Your task to perform on an android device: turn off notifications settings in the gmail app Image 0: 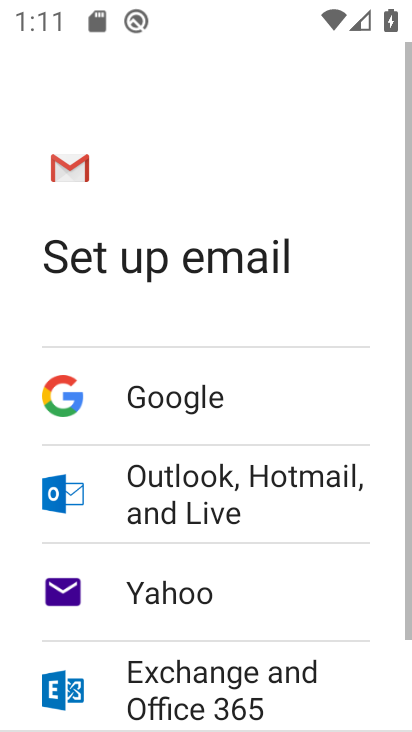
Step 0: press home button
Your task to perform on an android device: turn off notifications settings in the gmail app Image 1: 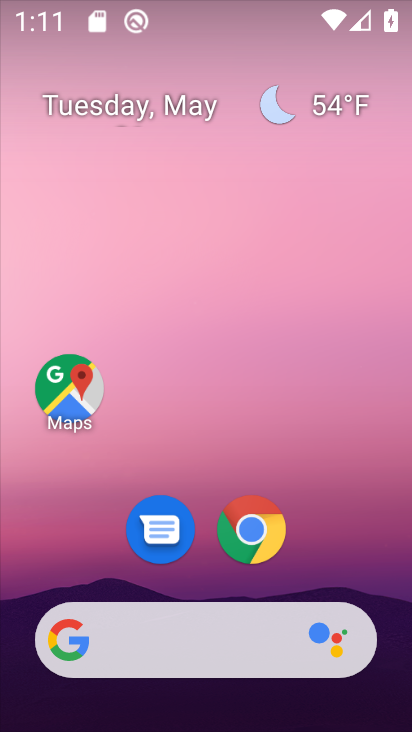
Step 1: drag from (321, 559) to (304, 189)
Your task to perform on an android device: turn off notifications settings in the gmail app Image 2: 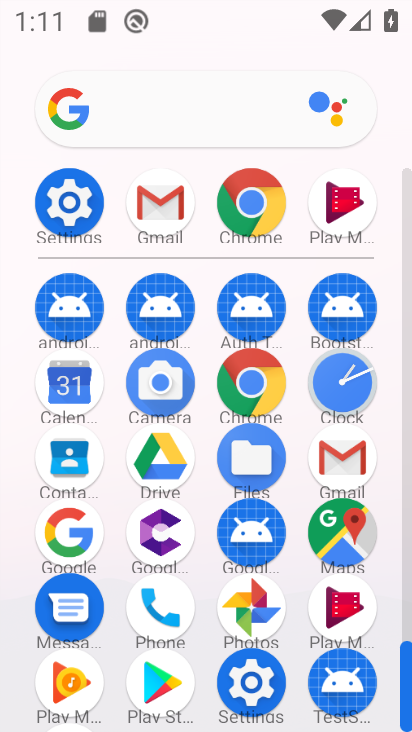
Step 2: click (75, 190)
Your task to perform on an android device: turn off notifications settings in the gmail app Image 3: 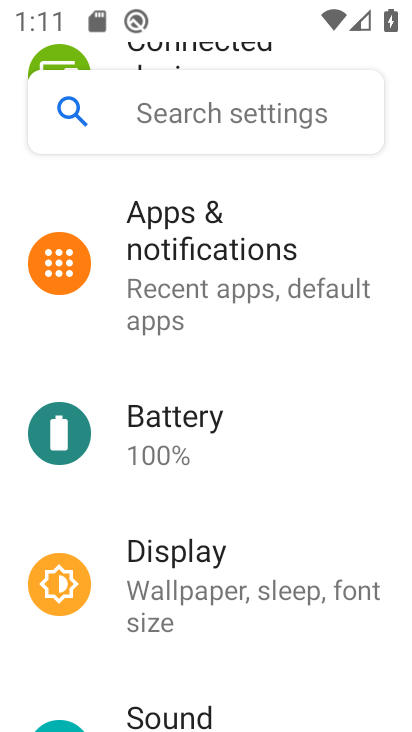
Step 3: press home button
Your task to perform on an android device: turn off notifications settings in the gmail app Image 4: 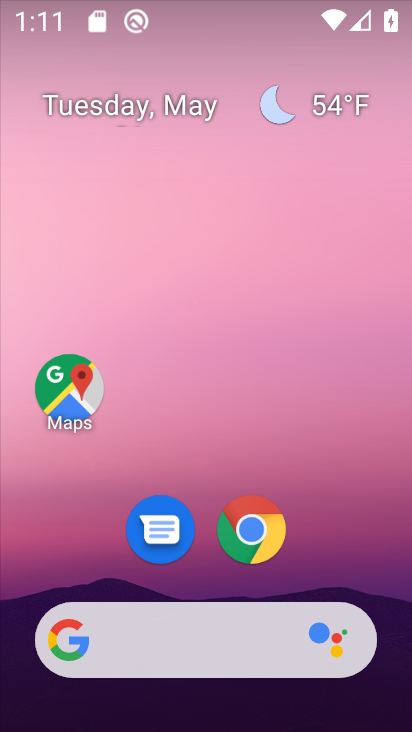
Step 4: drag from (267, 530) to (238, 285)
Your task to perform on an android device: turn off notifications settings in the gmail app Image 5: 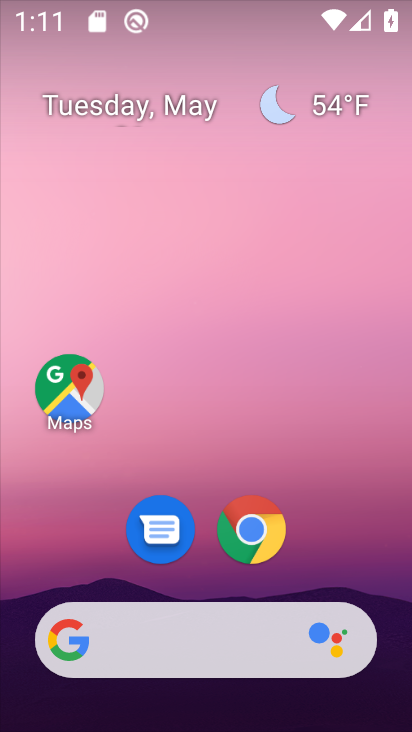
Step 5: drag from (177, 592) to (196, 221)
Your task to perform on an android device: turn off notifications settings in the gmail app Image 6: 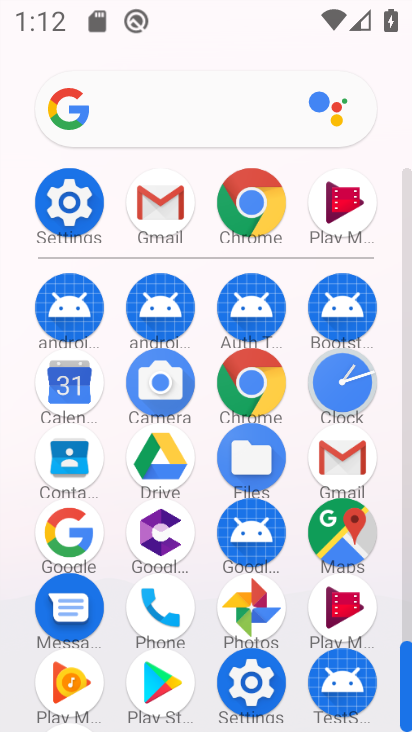
Step 6: click (341, 447)
Your task to perform on an android device: turn off notifications settings in the gmail app Image 7: 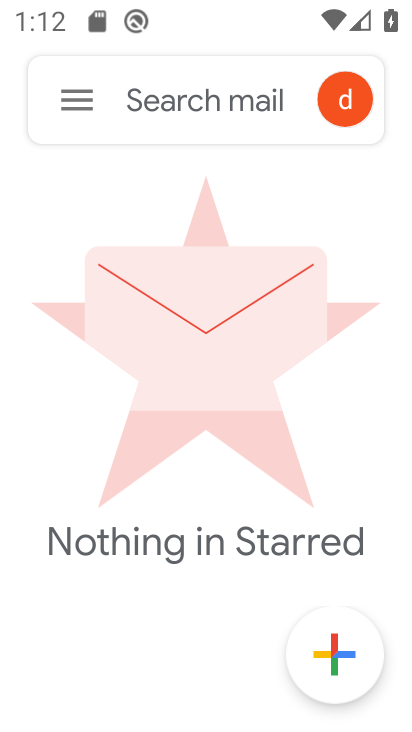
Step 7: click (76, 93)
Your task to perform on an android device: turn off notifications settings in the gmail app Image 8: 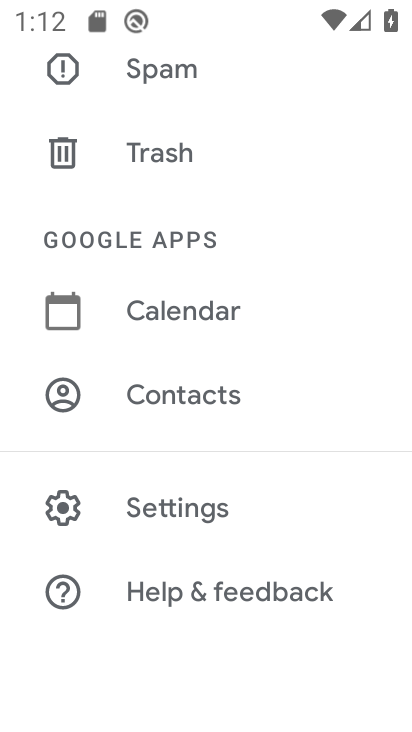
Step 8: click (183, 497)
Your task to perform on an android device: turn off notifications settings in the gmail app Image 9: 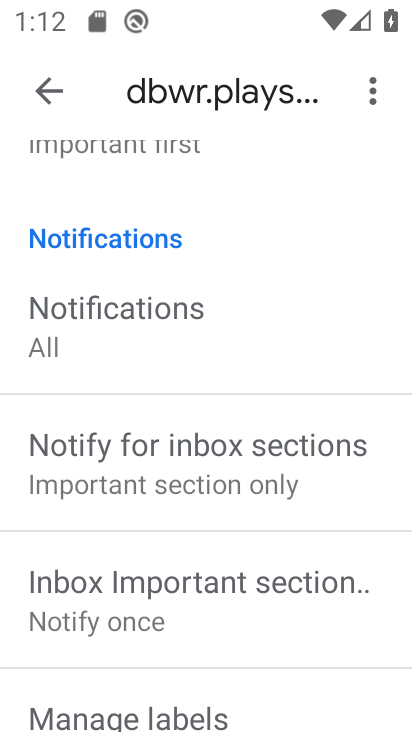
Step 9: click (147, 326)
Your task to perform on an android device: turn off notifications settings in the gmail app Image 10: 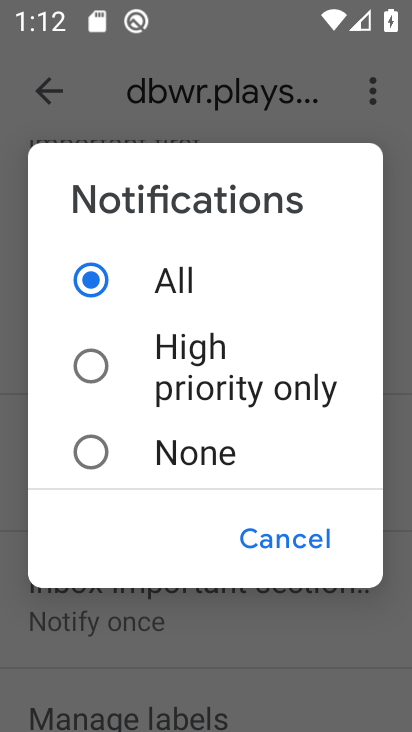
Step 10: click (268, 538)
Your task to perform on an android device: turn off notifications settings in the gmail app Image 11: 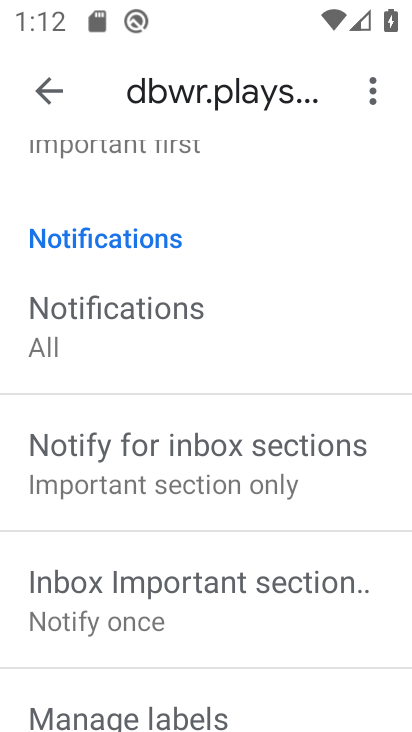
Step 11: click (135, 306)
Your task to perform on an android device: turn off notifications settings in the gmail app Image 12: 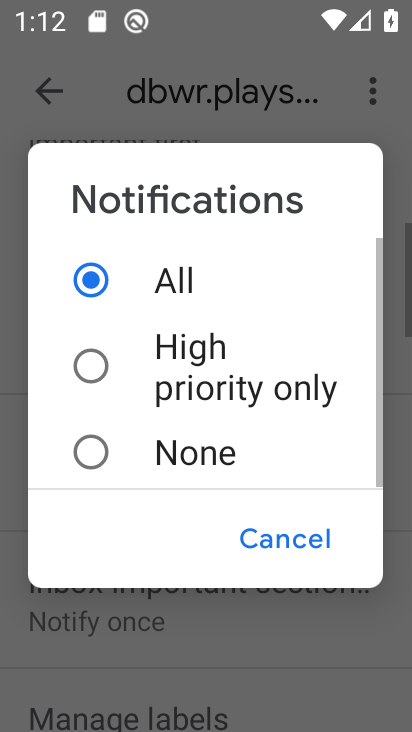
Step 12: click (171, 462)
Your task to perform on an android device: turn off notifications settings in the gmail app Image 13: 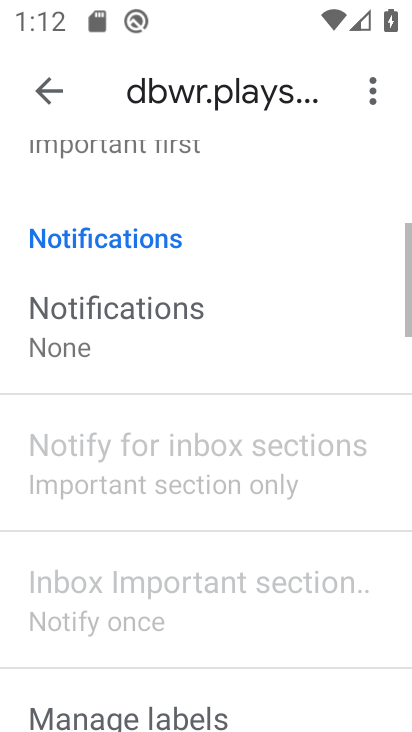
Step 13: task complete